Your task to perform on an android device: Open Google Chrome Image 0: 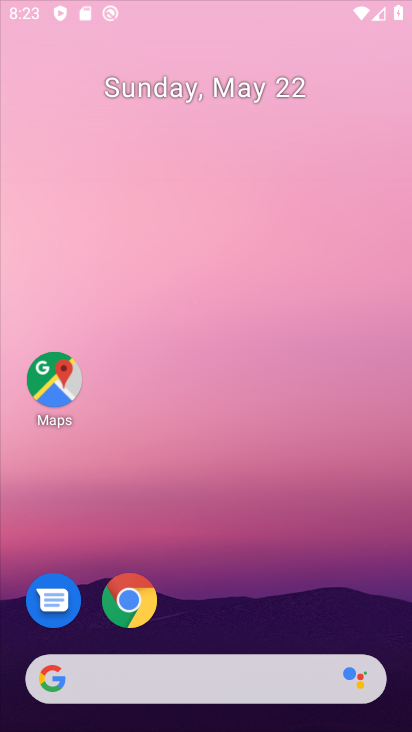
Step 0: drag from (233, 612) to (199, 303)
Your task to perform on an android device: Open Google Chrome Image 1: 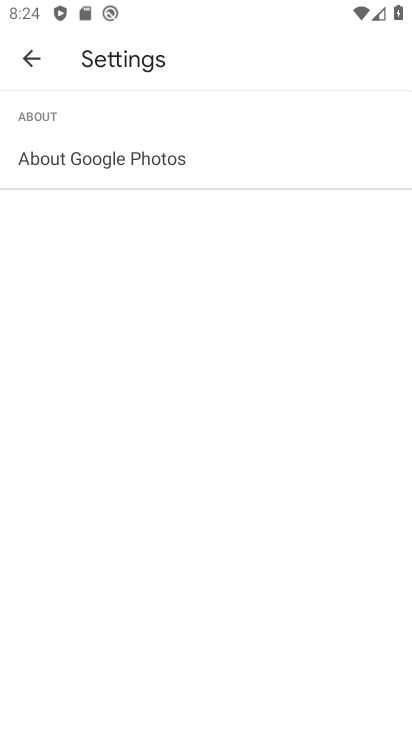
Step 1: press home button
Your task to perform on an android device: Open Google Chrome Image 2: 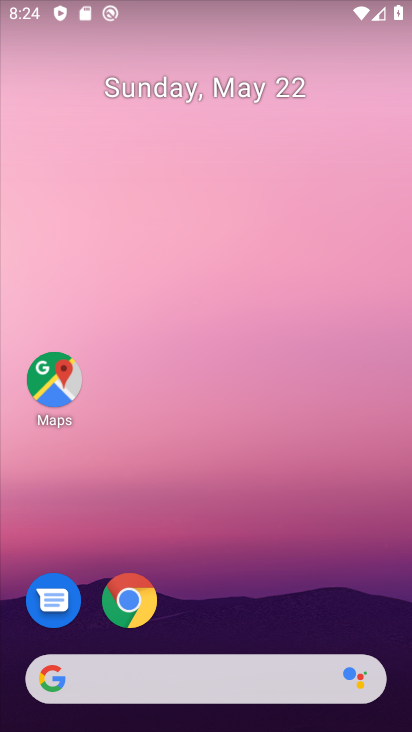
Step 2: click (127, 612)
Your task to perform on an android device: Open Google Chrome Image 3: 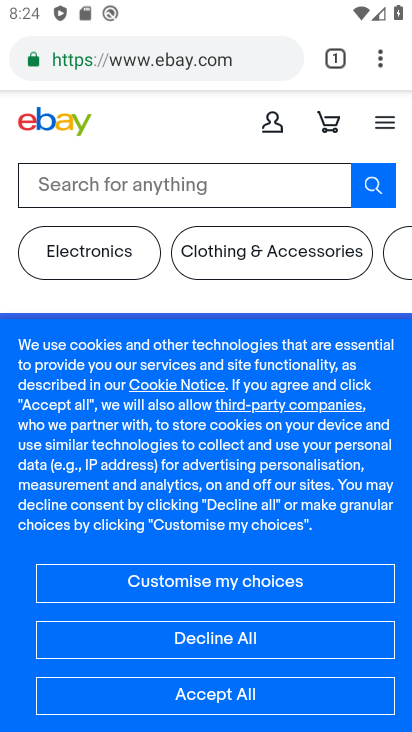
Step 3: task complete